Your task to perform on an android device: Go to Maps Image 0: 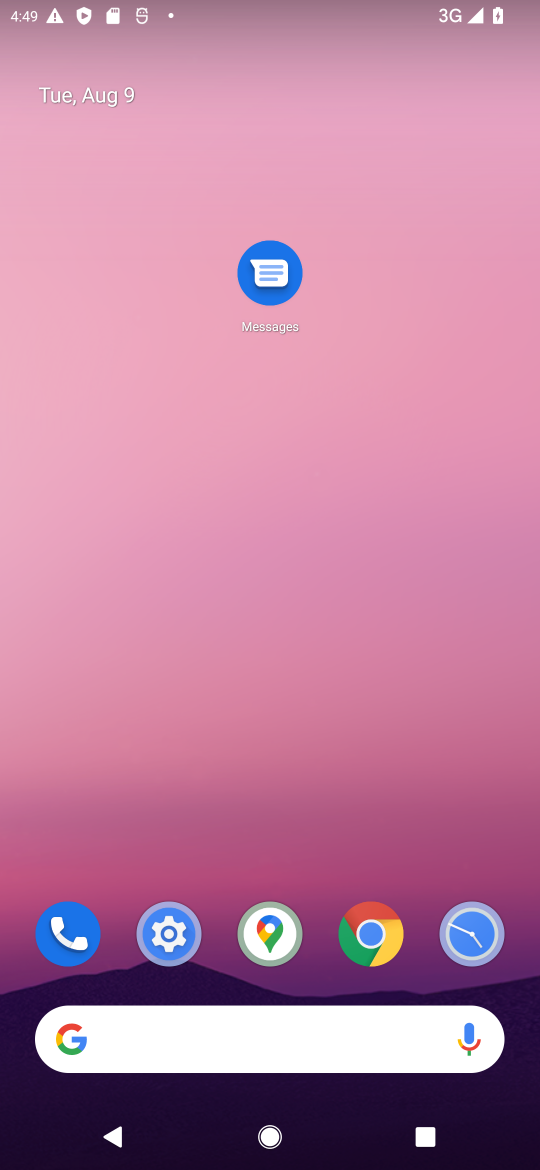
Step 0: click (184, 922)
Your task to perform on an android device: Go to Maps Image 1: 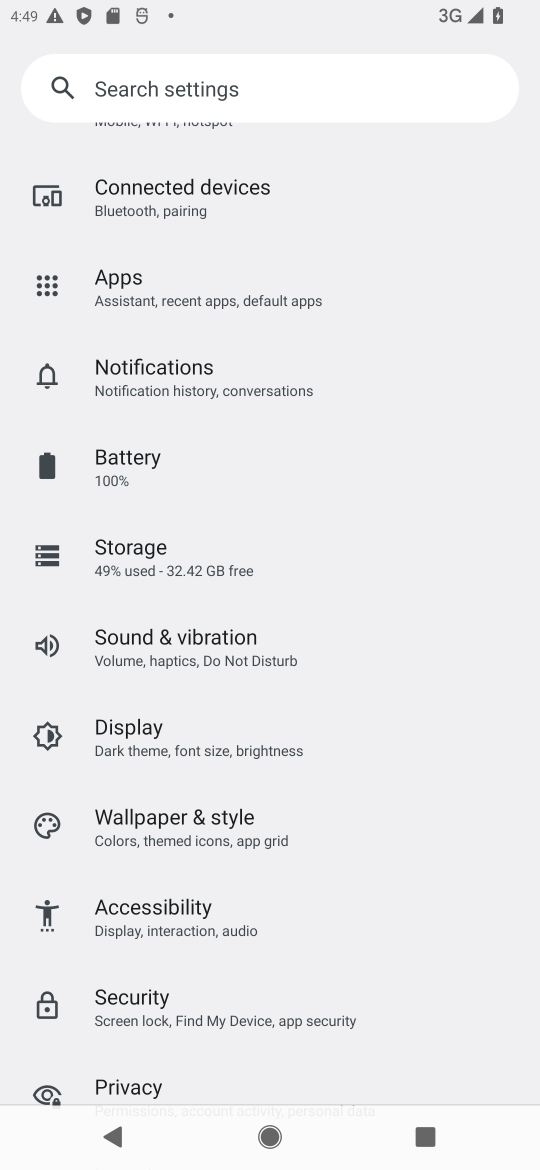
Step 1: press home button
Your task to perform on an android device: Go to Maps Image 2: 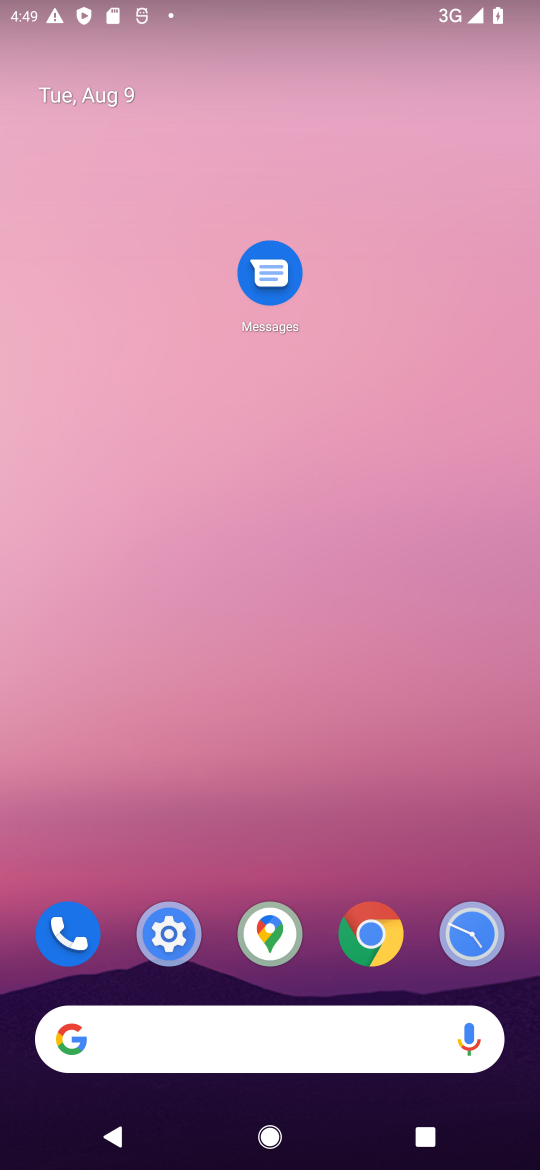
Step 2: click (290, 918)
Your task to perform on an android device: Go to Maps Image 3: 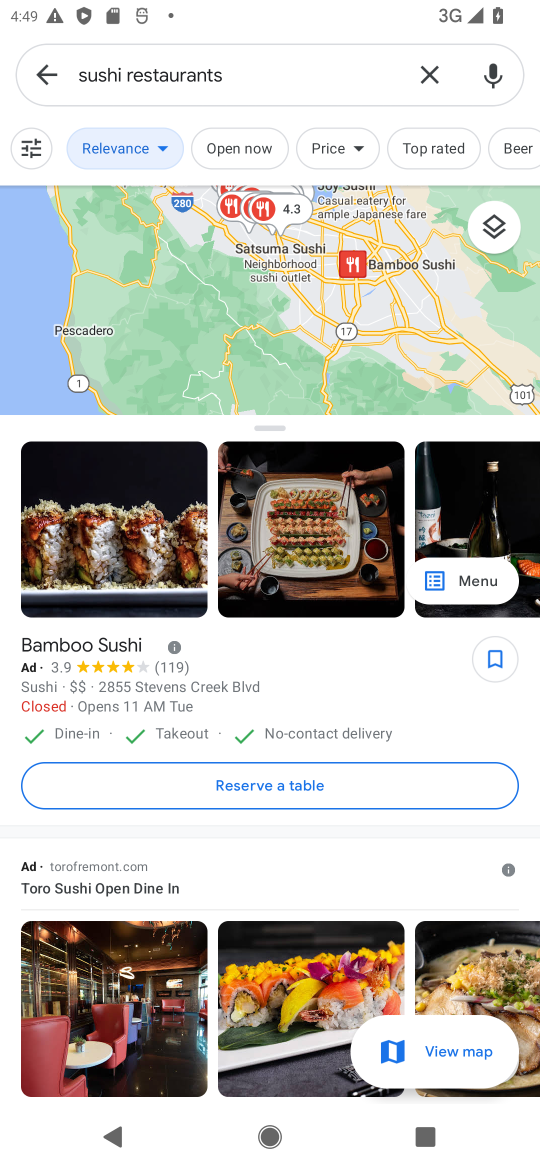
Step 3: task complete